Your task to perform on an android device: Open accessibility settings Image 0: 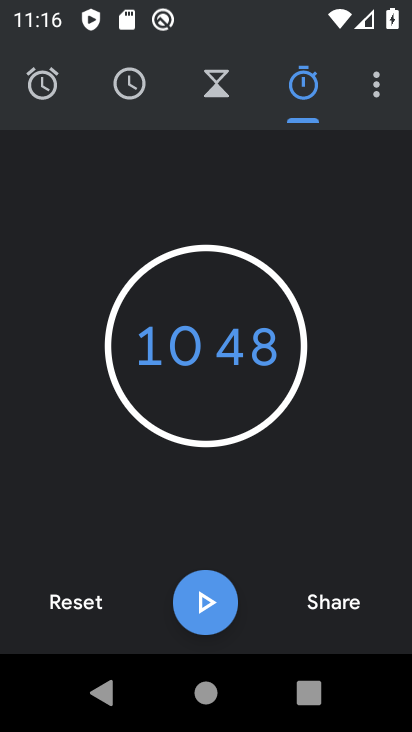
Step 0: press home button
Your task to perform on an android device: Open accessibility settings Image 1: 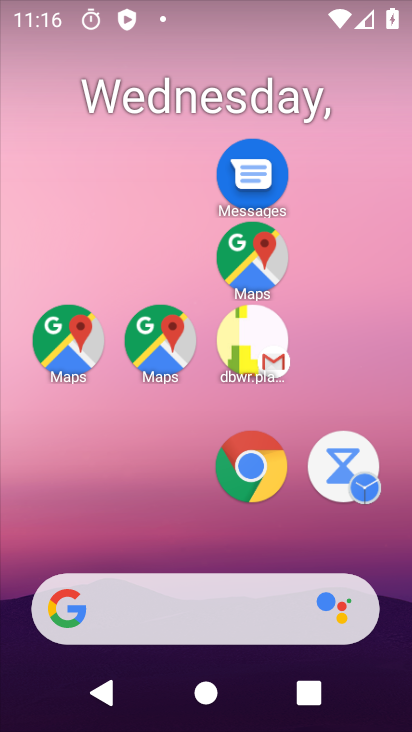
Step 1: drag from (384, 697) to (194, 111)
Your task to perform on an android device: Open accessibility settings Image 2: 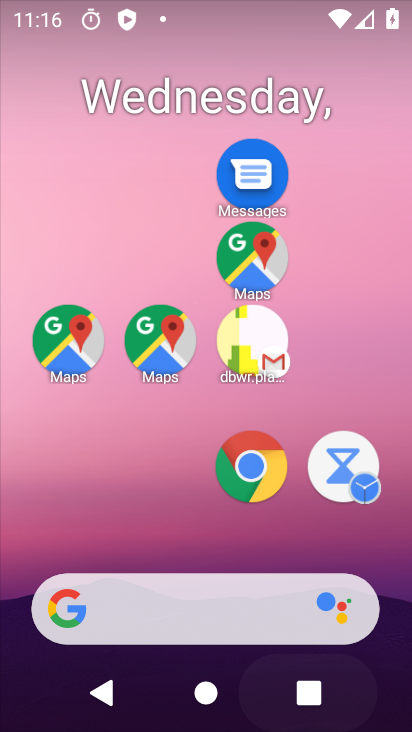
Step 2: drag from (322, 636) to (164, 218)
Your task to perform on an android device: Open accessibility settings Image 3: 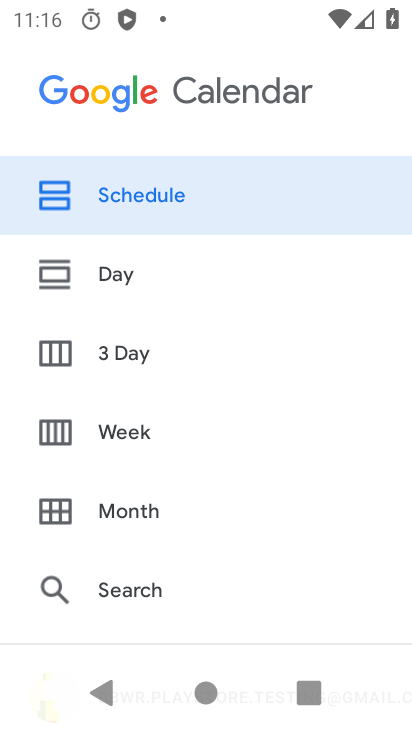
Step 3: press home button
Your task to perform on an android device: Open accessibility settings Image 4: 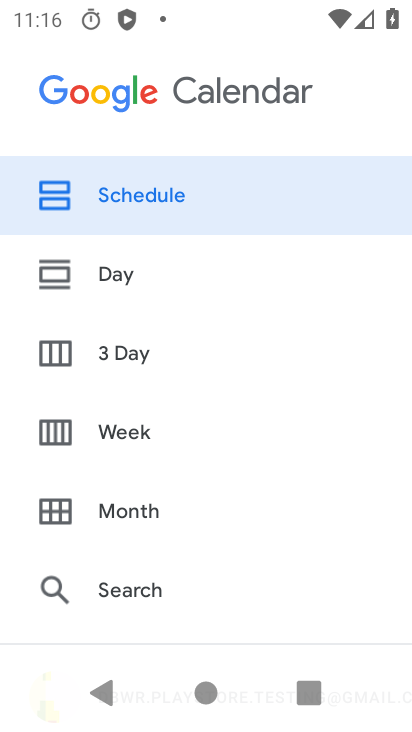
Step 4: press home button
Your task to perform on an android device: Open accessibility settings Image 5: 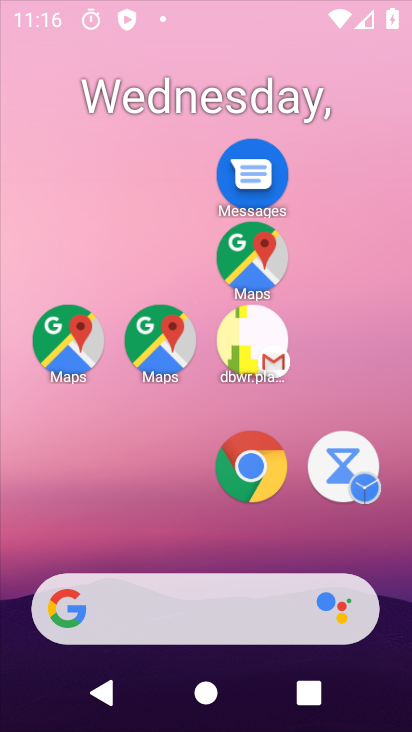
Step 5: press home button
Your task to perform on an android device: Open accessibility settings Image 6: 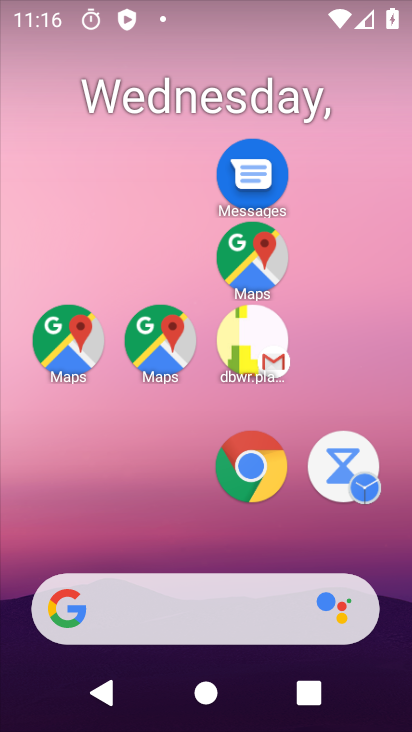
Step 6: press home button
Your task to perform on an android device: Open accessibility settings Image 7: 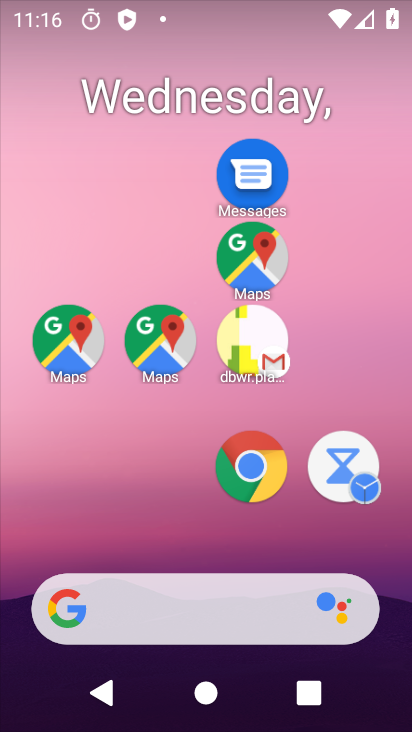
Step 7: drag from (258, 659) to (184, 120)
Your task to perform on an android device: Open accessibility settings Image 8: 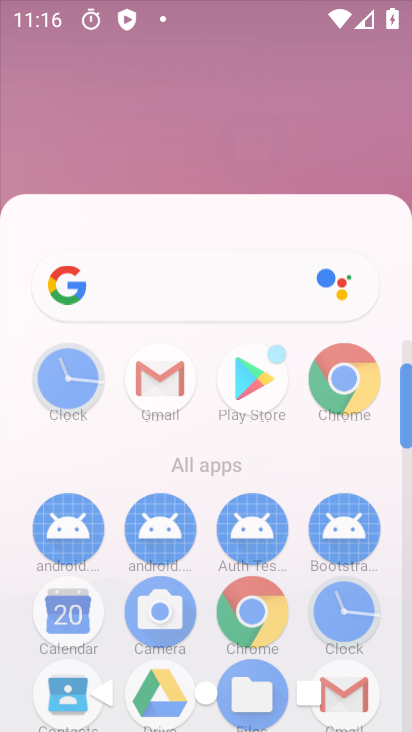
Step 8: drag from (201, 546) to (158, 224)
Your task to perform on an android device: Open accessibility settings Image 9: 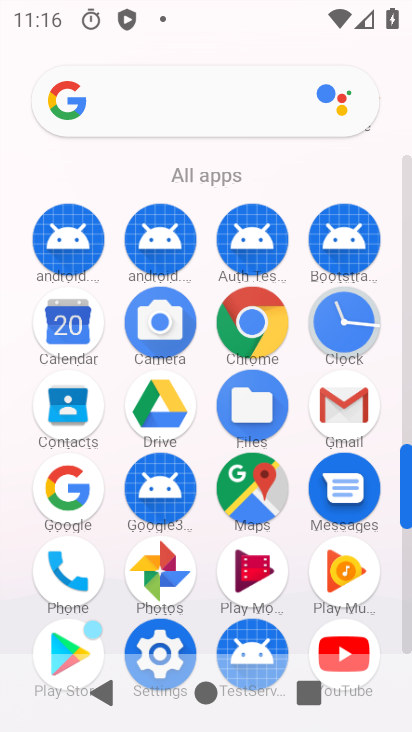
Step 9: drag from (173, 439) to (122, 99)
Your task to perform on an android device: Open accessibility settings Image 10: 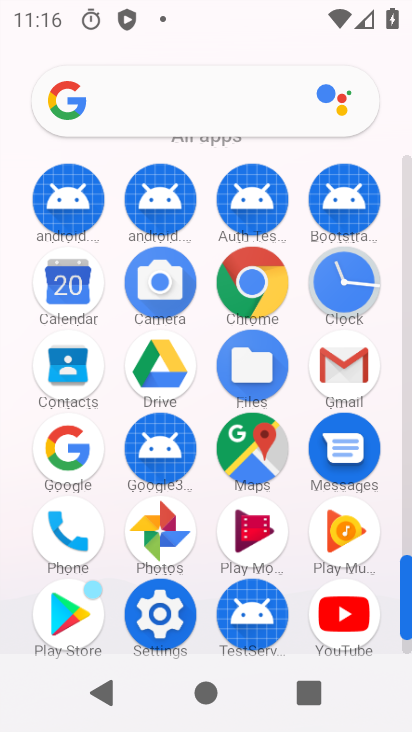
Step 10: drag from (181, 559) to (151, 176)
Your task to perform on an android device: Open accessibility settings Image 11: 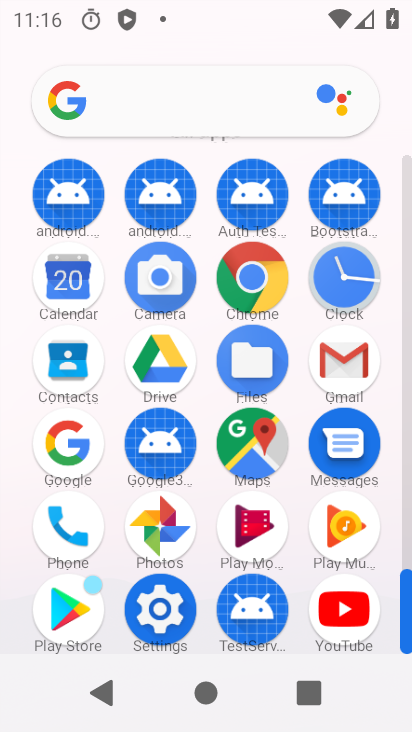
Step 11: click (153, 610)
Your task to perform on an android device: Open accessibility settings Image 12: 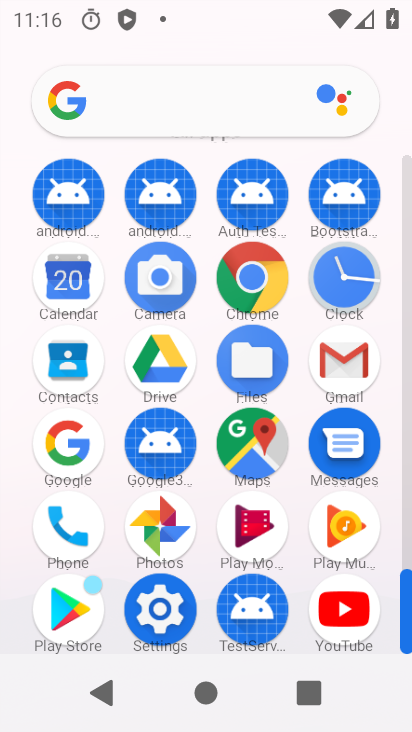
Step 12: click (153, 610)
Your task to perform on an android device: Open accessibility settings Image 13: 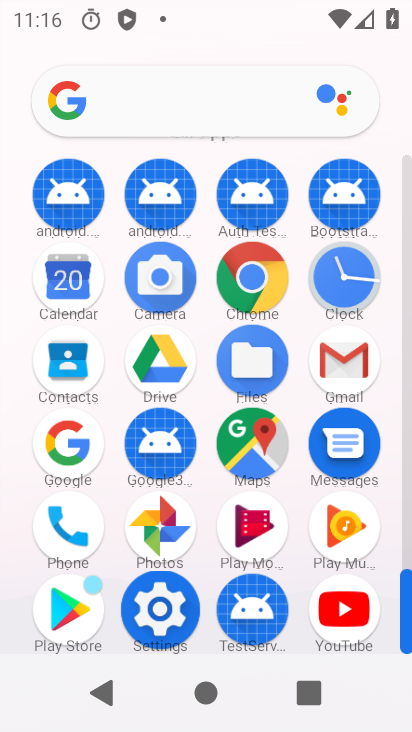
Step 13: click (153, 610)
Your task to perform on an android device: Open accessibility settings Image 14: 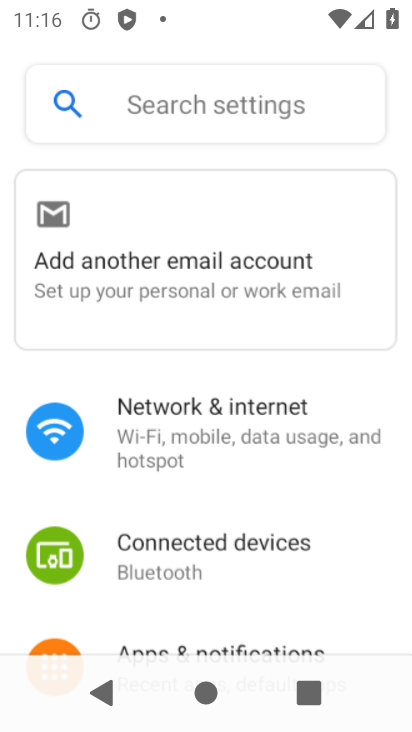
Step 14: click (153, 610)
Your task to perform on an android device: Open accessibility settings Image 15: 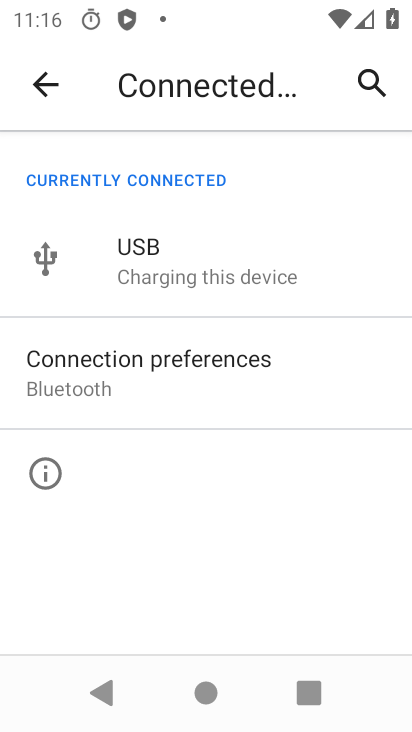
Step 15: click (43, 81)
Your task to perform on an android device: Open accessibility settings Image 16: 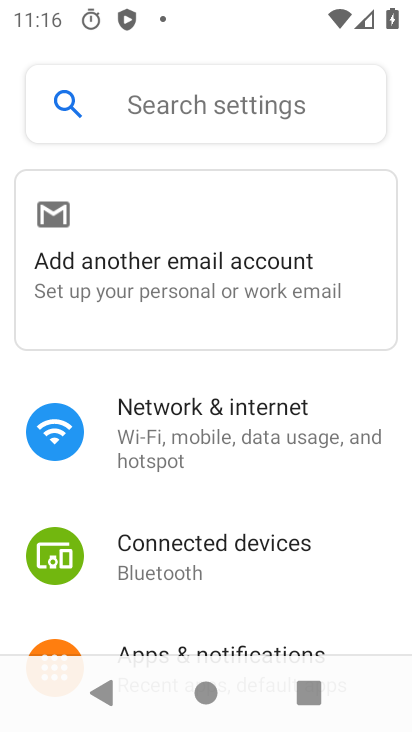
Step 16: drag from (201, 431) to (217, 160)
Your task to perform on an android device: Open accessibility settings Image 17: 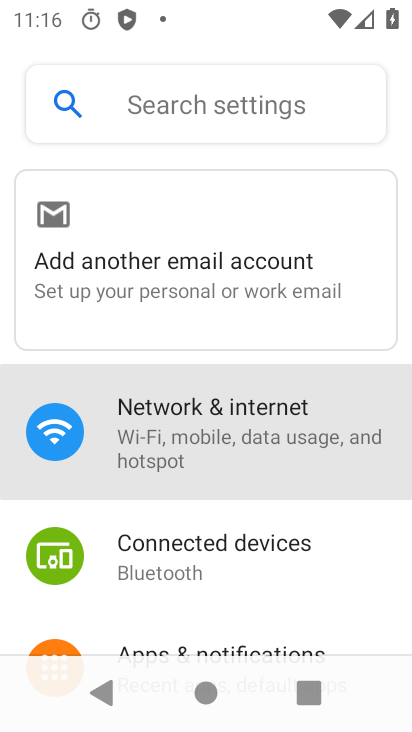
Step 17: drag from (280, 430) to (257, 239)
Your task to perform on an android device: Open accessibility settings Image 18: 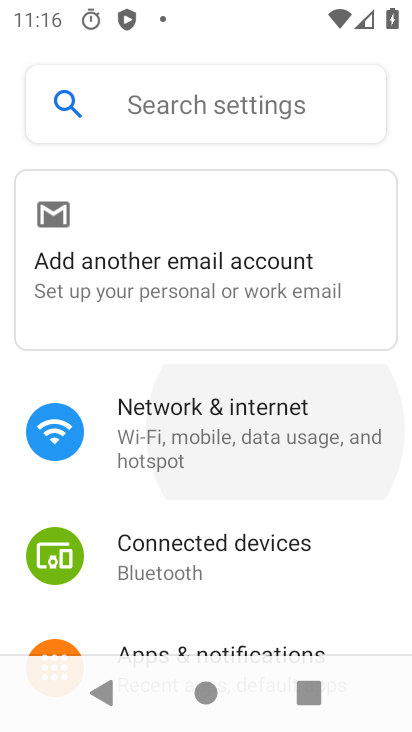
Step 18: drag from (221, 456) to (218, 189)
Your task to perform on an android device: Open accessibility settings Image 19: 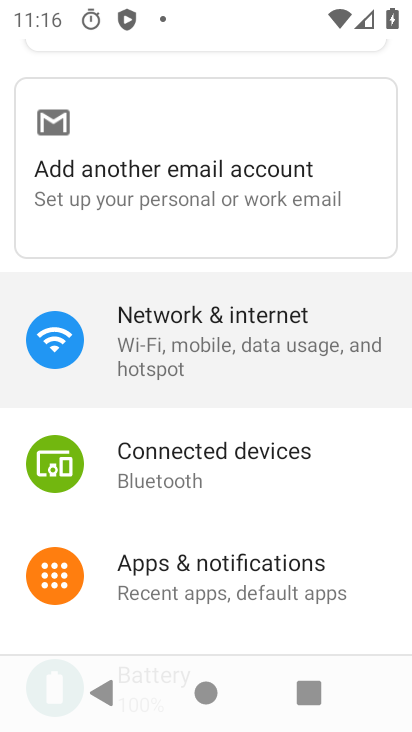
Step 19: drag from (111, 301) to (111, 171)
Your task to perform on an android device: Open accessibility settings Image 20: 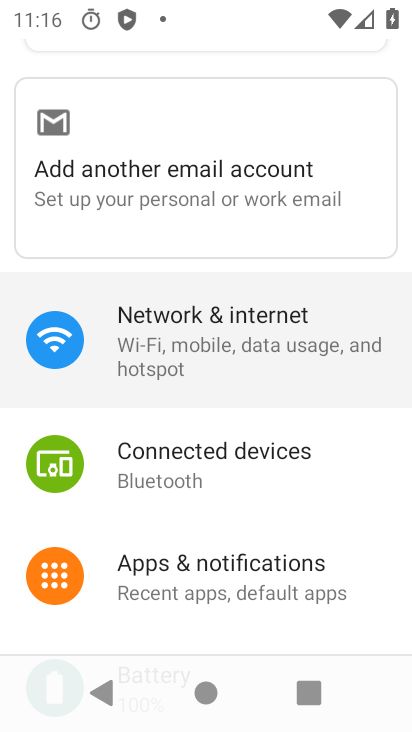
Step 20: drag from (185, 282) to (183, 30)
Your task to perform on an android device: Open accessibility settings Image 21: 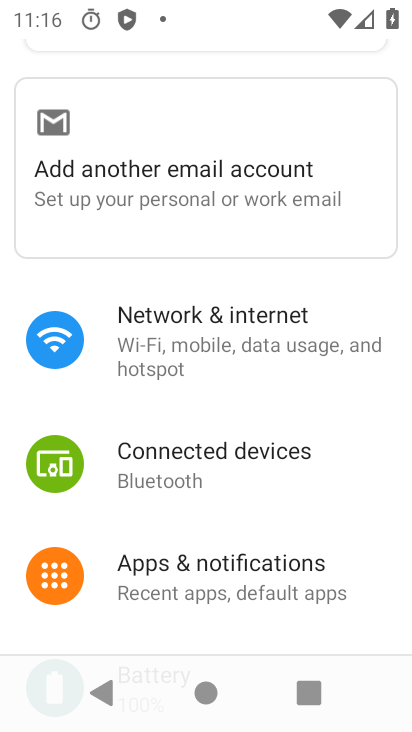
Step 21: drag from (209, 523) to (178, 275)
Your task to perform on an android device: Open accessibility settings Image 22: 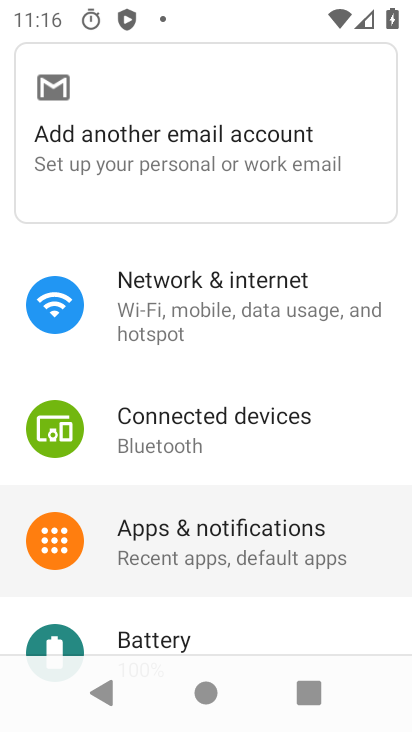
Step 22: drag from (301, 362) to (270, 267)
Your task to perform on an android device: Open accessibility settings Image 23: 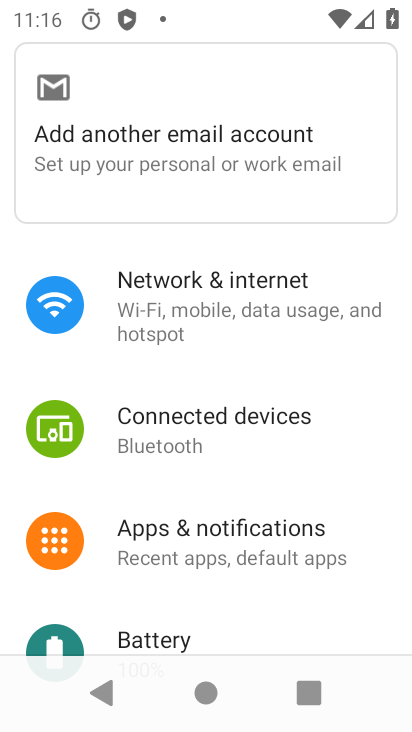
Step 23: drag from (262, 486) to (232, 212)
Your task to perform on an android device: Open accessibility settings Image 24: 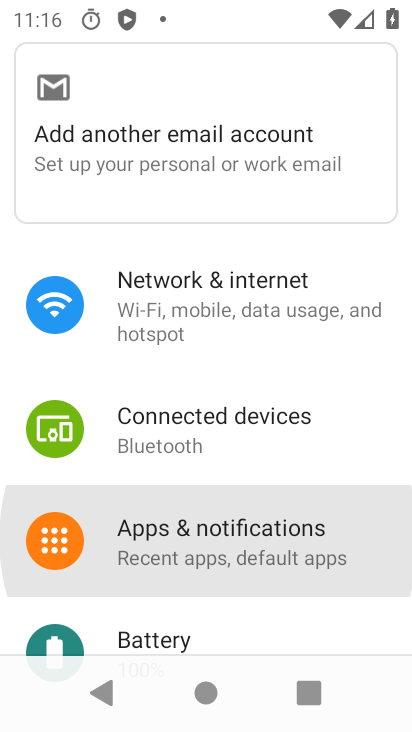
Step 24: drag from (212, 489) to (170, 183)
Your task to perform on an android device: Open accessibility settings Image 25: 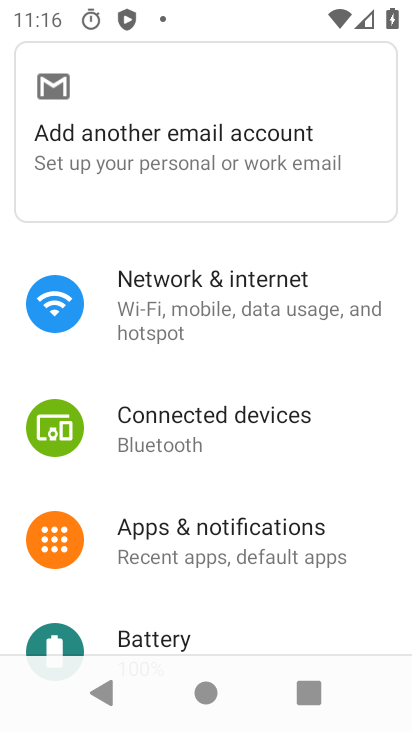
Step 25: click (174, 250)
Your task to perform on an android device: Open accessibility settings Image 26: 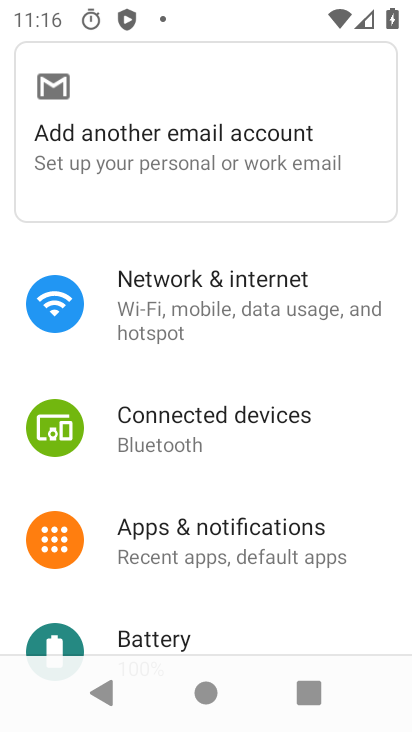
Step 26: drag from (292, 519) to (282, 338)
Your task to perform on an android device: Open accessibility settings Image 27: 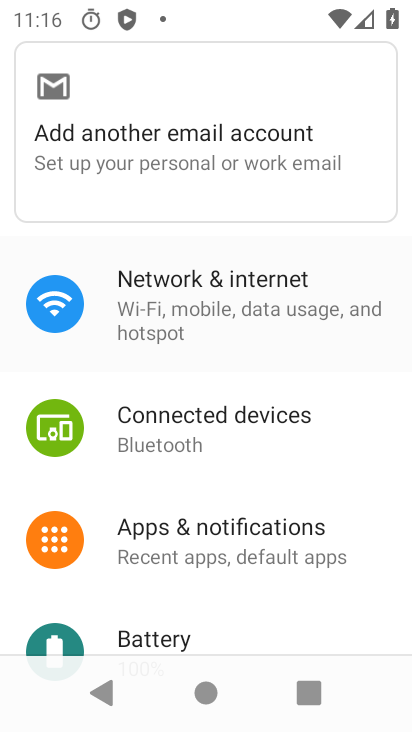
Step 27: drag from (288, 488) to (249, 195)
Your task to perform on an android device: Open accessibility settings Image 28: 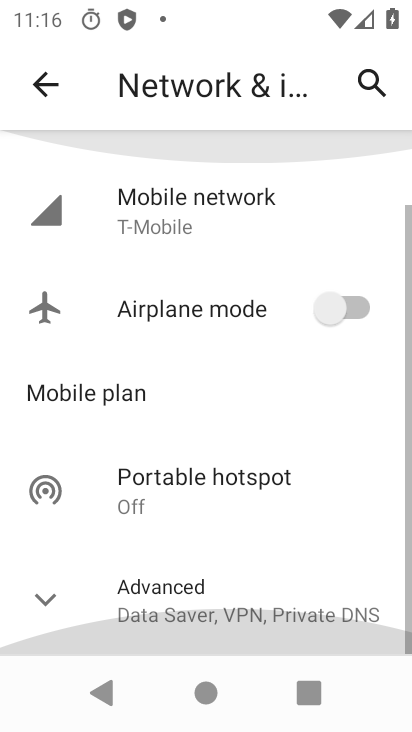
Step 28: drag from (252, 325) to (232, 125)
Your task to perform on an android device: Open accessibility settings Image 29: 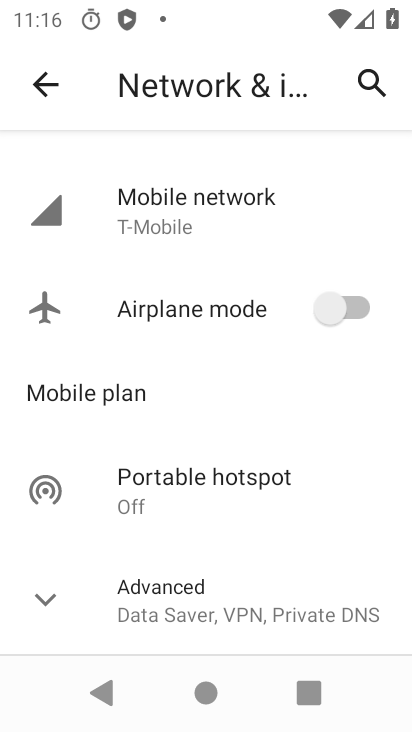
Step 29: click (44, 82)
Your task to perform on an android device: Open accessibility settings Image 30: 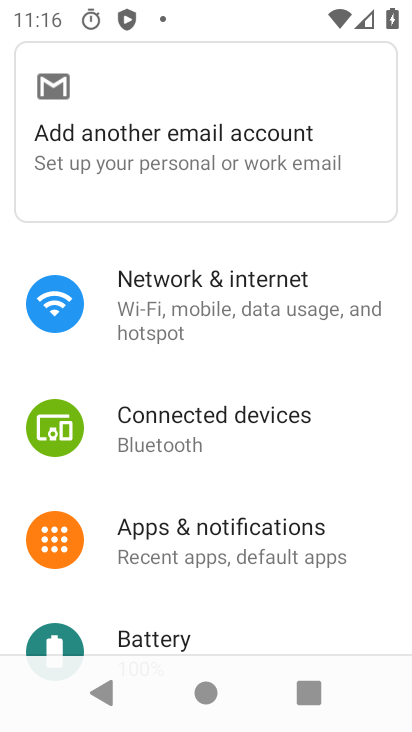
Step 30: drag from (235, 598) to (231, 256)
Your task to perform on an android device: Open accessibility settings Image 31: 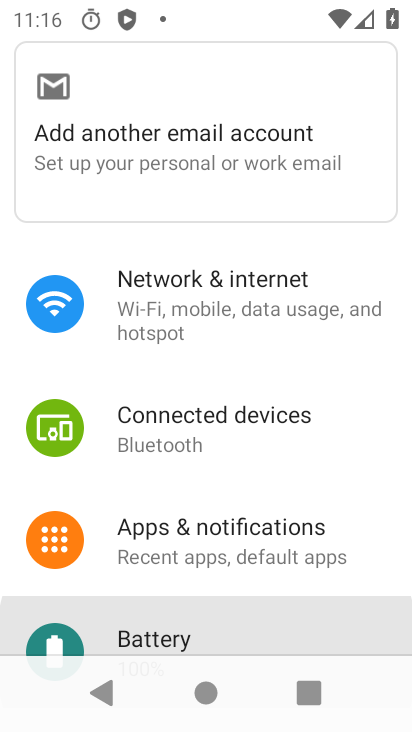
Step 31: drag from (277, 298) to (277, 213)
Your task to perform on an android device: Open accessibility settings Image 32: 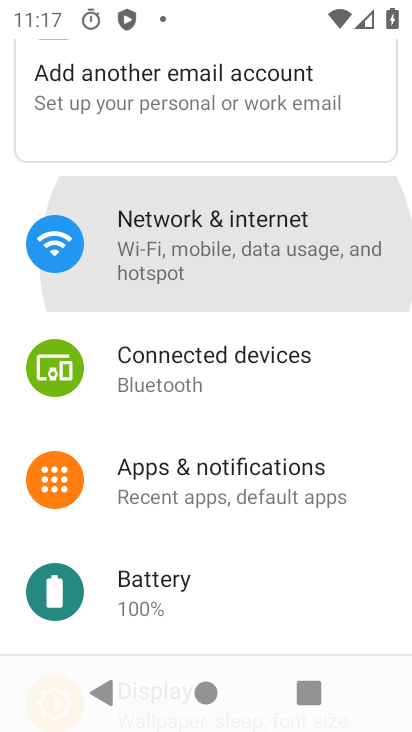
Step 32: drag from (218, 406) to (224, 275)
Your task to perform on an android device: Open accessibility settings Image 33: 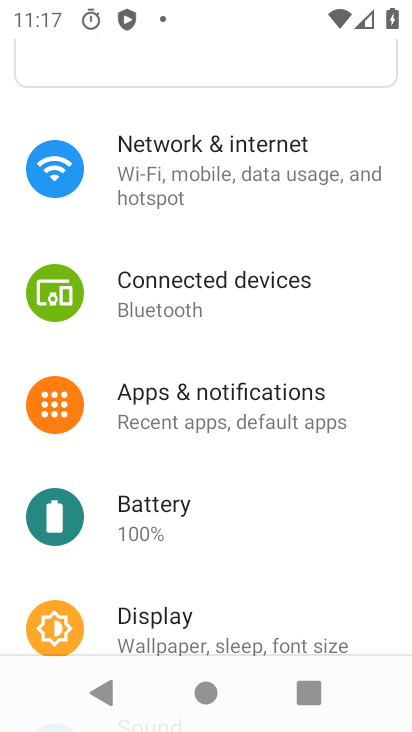
Step 33: drag from (284, 527) to (277, 320)
Your task to perform on an android device: Open accessibility settings Image 34: 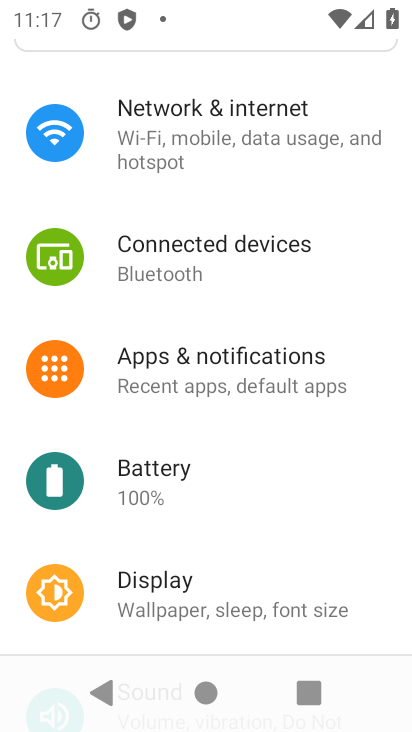
Step 34: click (174, 357)
Your task to perform on an android device: Open accessibility settings Image 35: 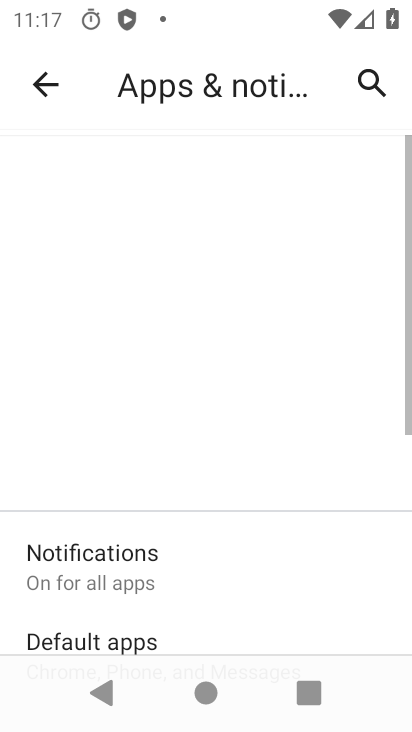
Step 35: drag from (206, 481) to (156, 212)
Your task to perform on an android device: Open accessibility settings Image 36: 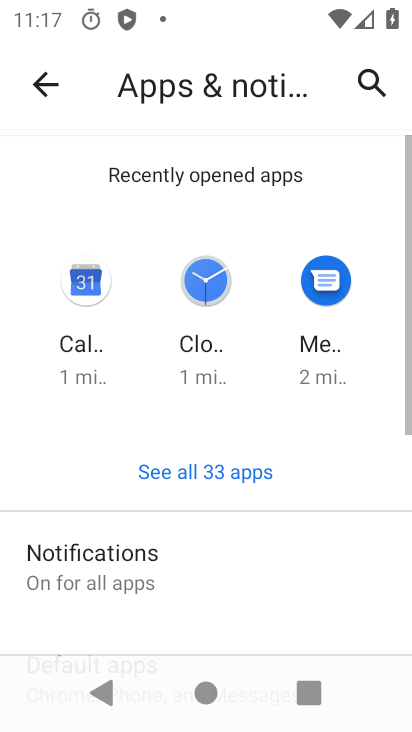
Step 36: click (43, 85)
Your task to perform on an android device: Open accessibility settings Image 37: 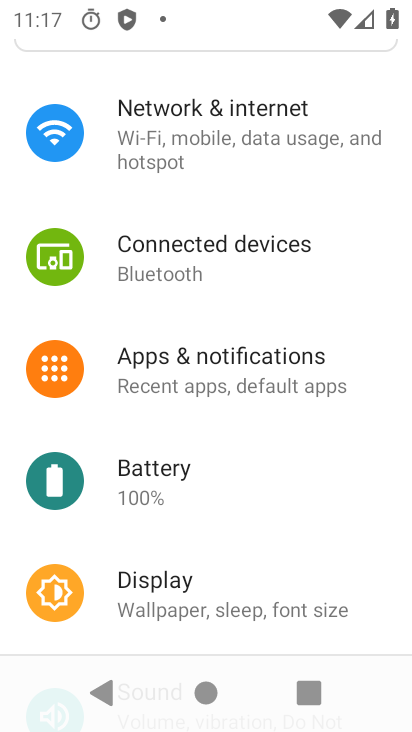
Step 37: drag from (258, 547) to (218, 202)
Your task to perform on an android device: Open accessibility settings Image 38: 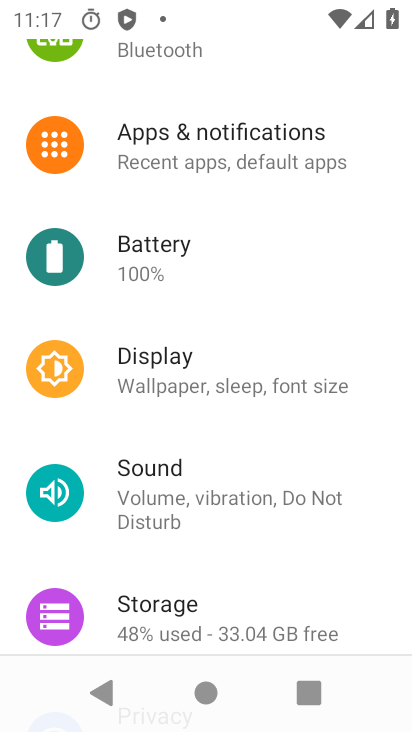
Step 38: drag from (269, 522) to (260, 218)
Your task to perform on an android device: Open accessibility settings Image 39: 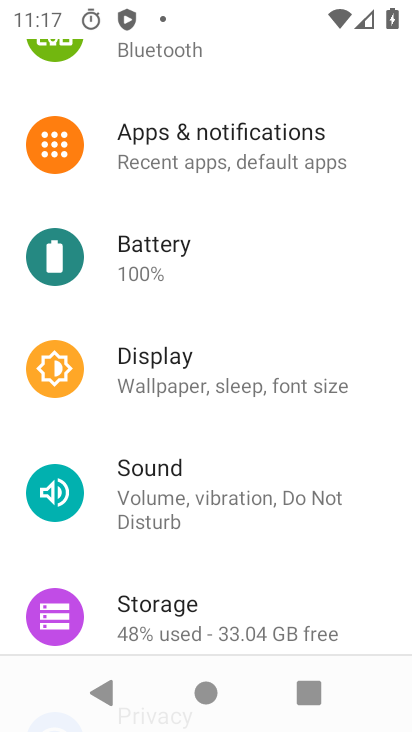
Step 39: drag from (215, 162) to (215, 104)
Your task to perform on an android device: Open accessibility settings Image 40: 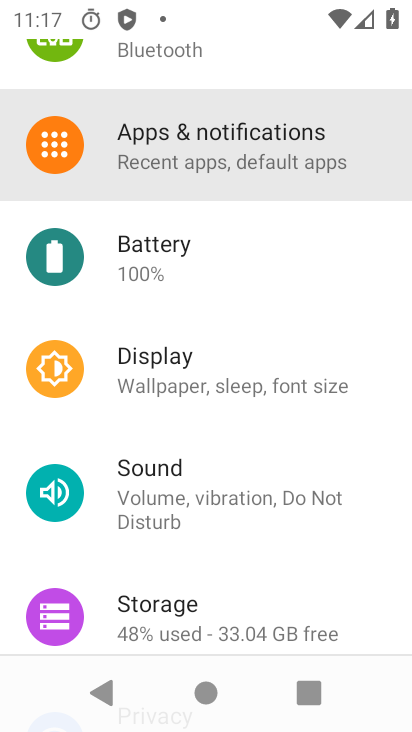
Step 40: drag from (210, 356) to (189, 267)
Your task to perform on an android device: Open accessibility settings Image 41: 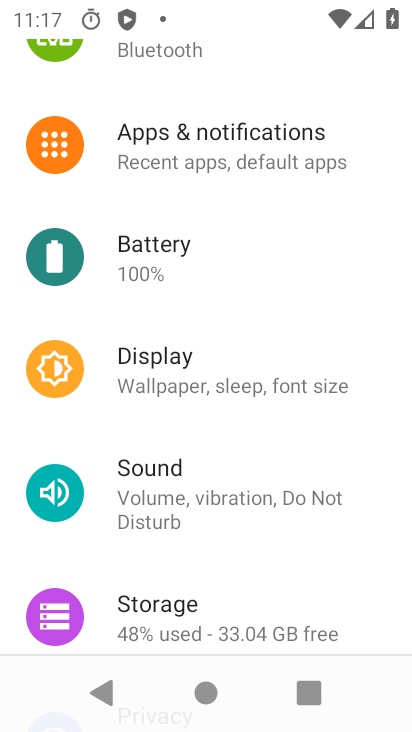
Step 41: drag from (165, 389) to (142, 279)
Your task to perform on an android device: Open accessibility settings Image 42: 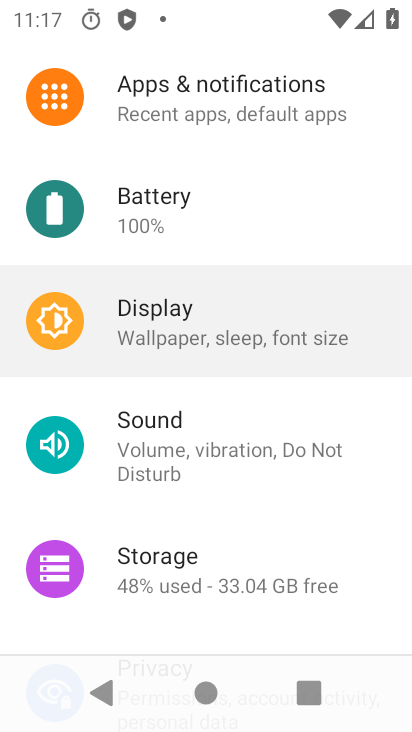
Step 42: drag from (166, 559) to (172, 205)
Your task to perform on an android device: Open accessibility settings Image 43: 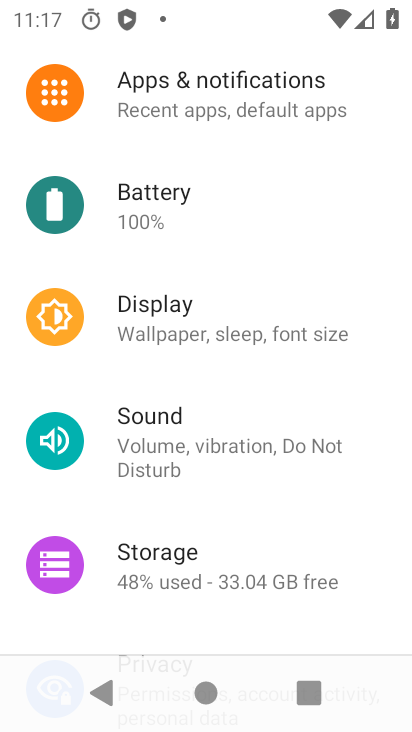
Step 43: click (182, 267)
Your task to perform on an android device: Open accessibility settings Image 44: 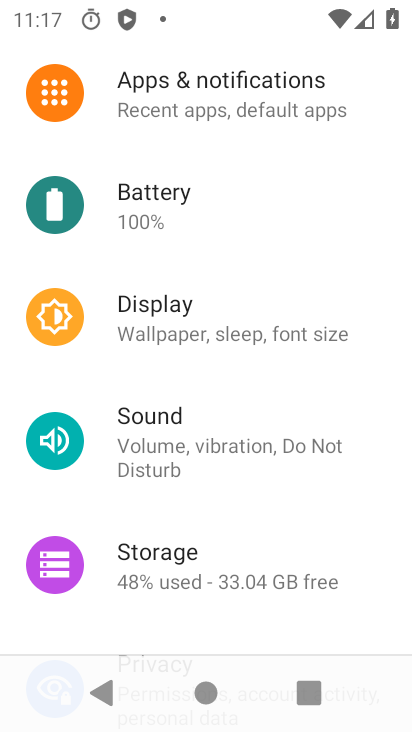
Step 44: drag from (192, 371) to (205, 177)
Your task to perform on an android device: Open accessibility settings Image 45: 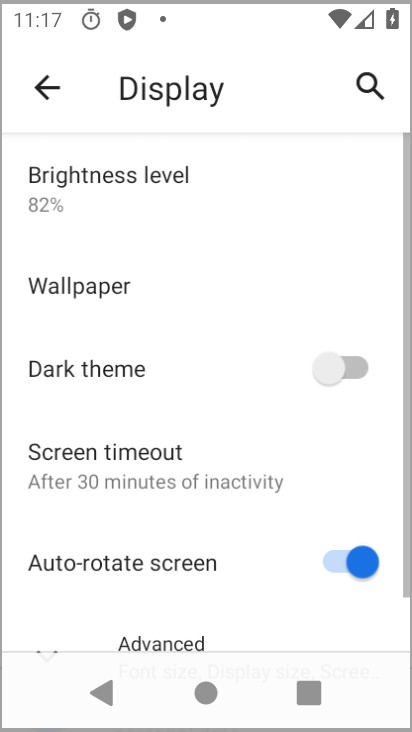
Step 45: drag from (221, 280) to (213, 170)
Your task to perform on an android device: Open accessibility settings Image 46: 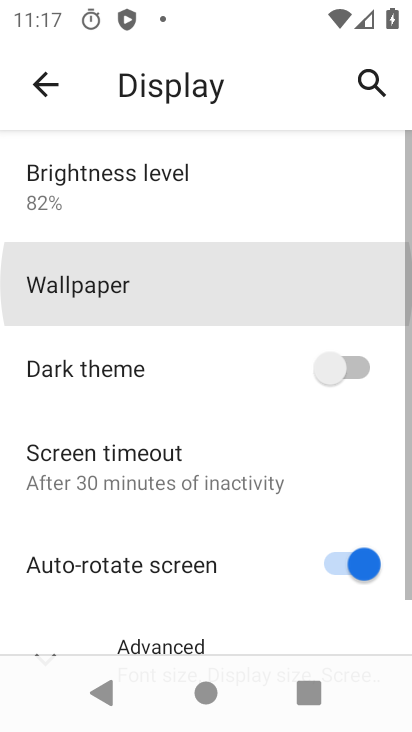
Step 46: drag from (217, 413) to (227, 147)
Your task to perform on an android device: Open accessibility settings Image 47: 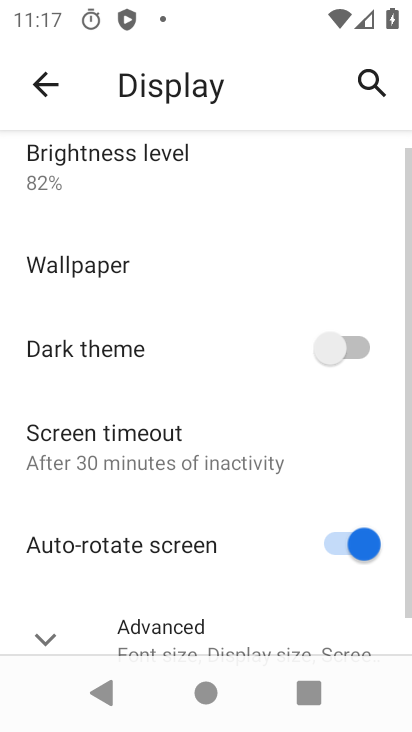
Step 47: click (37, 86)
Your task to perform on an android device: Open accessibility settings Image 48: 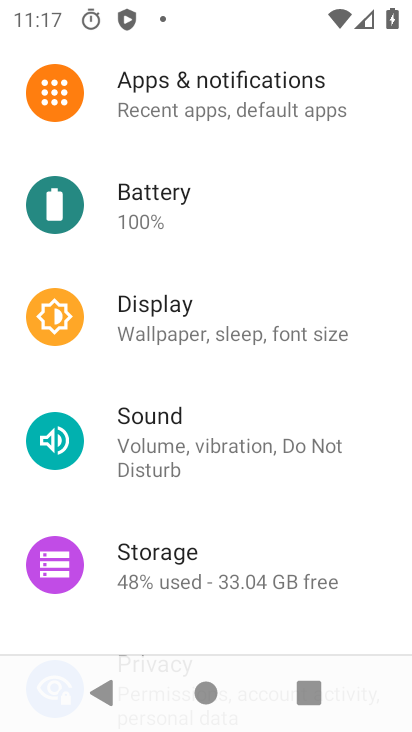
Step 48: drag from (162, 436) to (158, 68)
Your task to perform on an android device: Open accessibility settings Image 49: 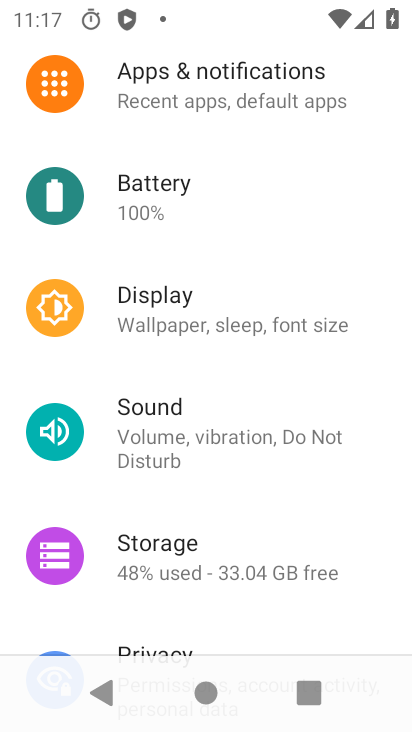
Step 49: drag from (228, 481) to (253, 123)
Your task to perform on an android device: Open accessibility settings Image 50: 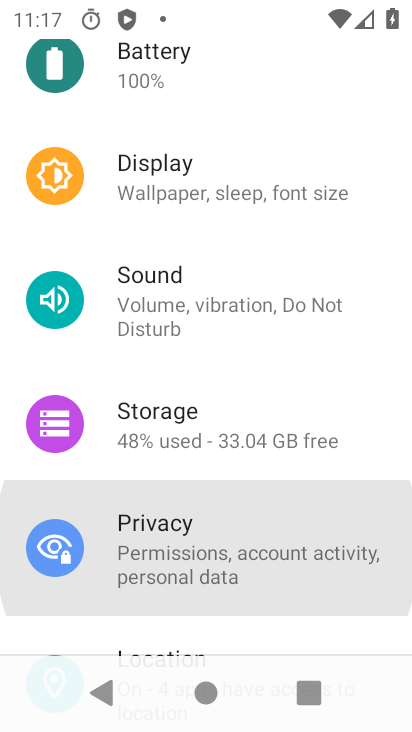
Step 50: drag from (235, 524) to (278, 179)
Your task to perform on an android device: Open accessibility settings Image 51: 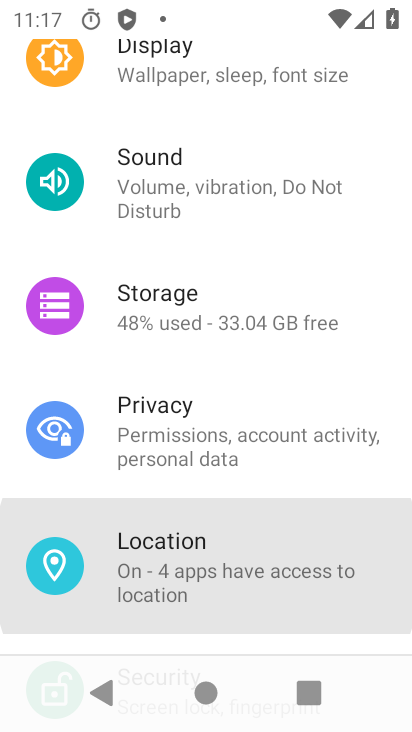
Step 51: drag from (240, 474) to (255, 186)
Your task to perform on an android device: Open accessibility settings Image 52: 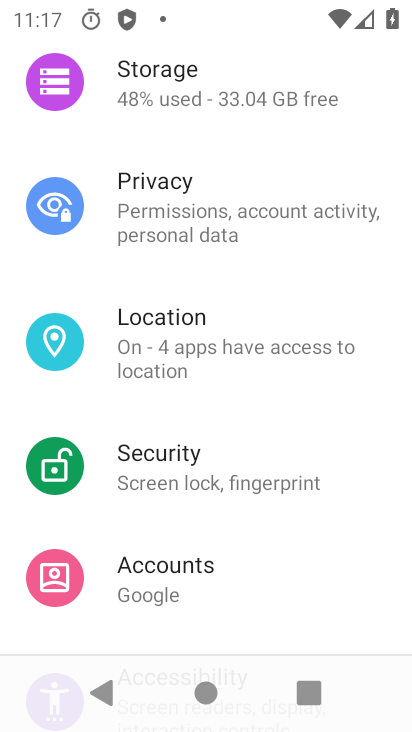
Step 52: drag from (264, 384) to (268, 145)
Your task to perform on an android device: Open accessibility settings Image 53: 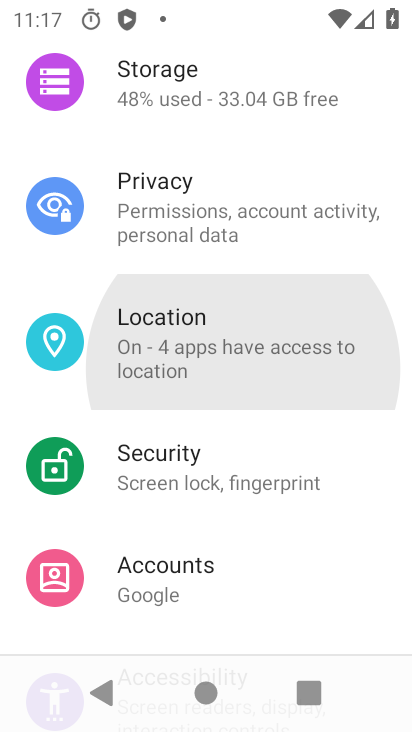
Step 53: drag from (265, 525) to (253, 192)
Your task to perform on an android device: Open accessibility settings Image 54: 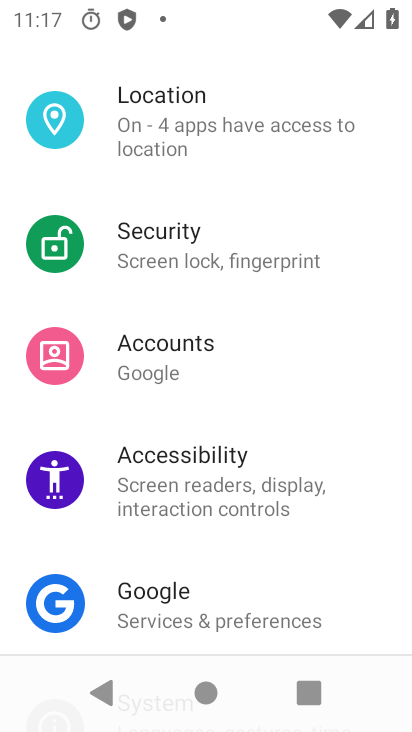
Step 54: drag from (250, 523) to (273, 103)
Your task to perform on an android device: Open accessibility settings Image 55: 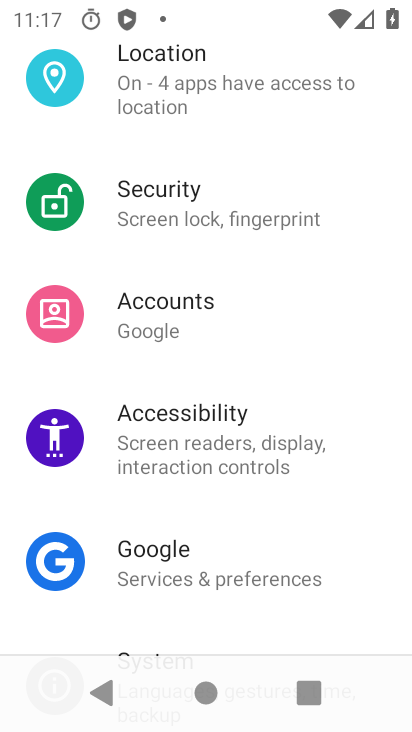
Step 55: click (161, 438)
Your task to perform on an android device: Open accessibility settings Image 56: 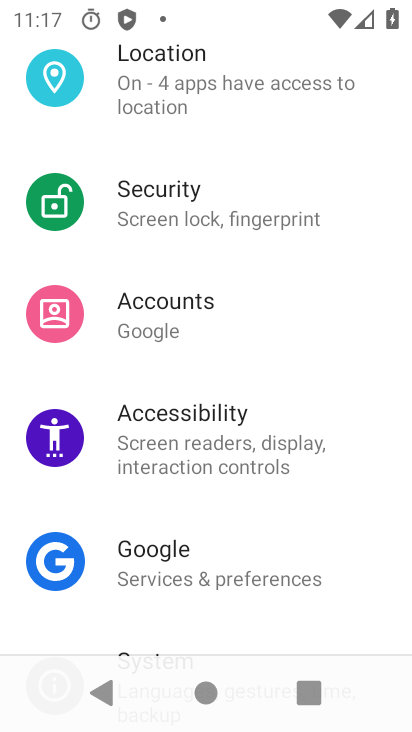
Step 56: click (161, 438)
Your task to perform on an android device: Open accessibility settings Image 57: 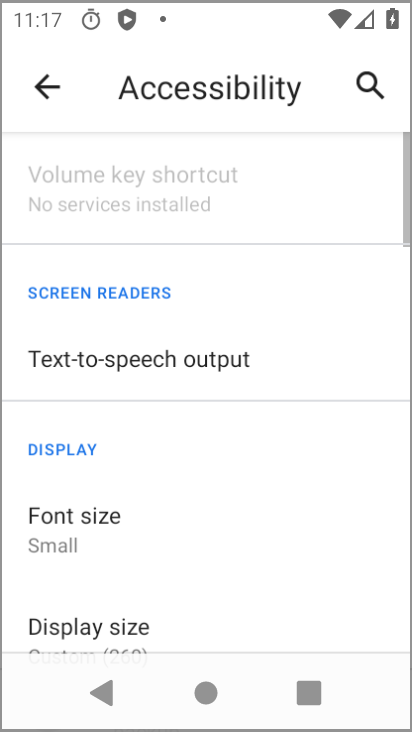
Step 57: click (160, 437)
Your task to perform on an android device: Open accessibility settings Image 58: 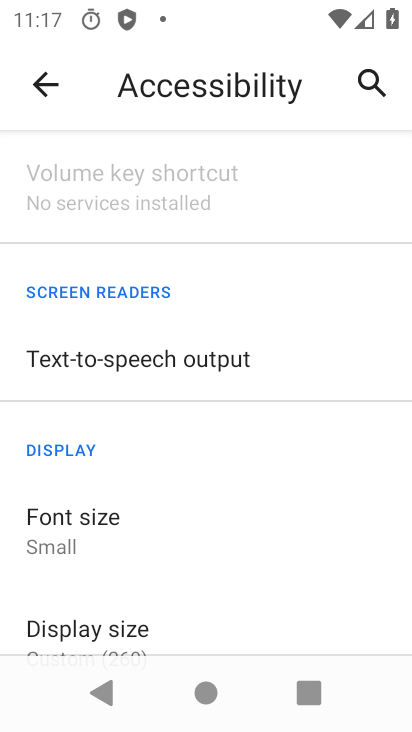
Step 58: task complete